Your task to perform on an android device: turn off picture-in-picture Image 0: 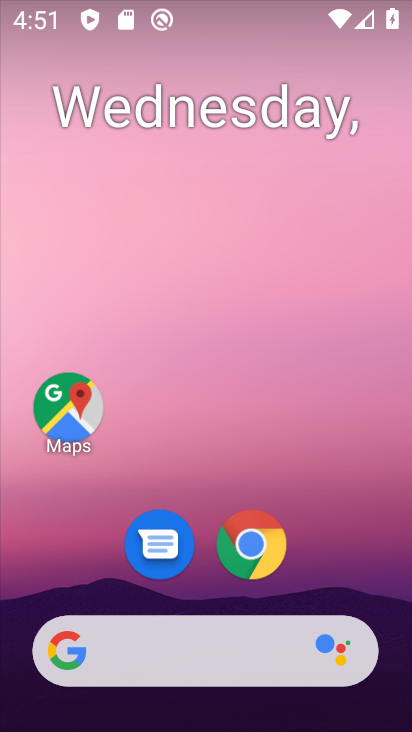
Step 0: click (250, 545)
Your task to perform on an android device: turn off picture-in-picture Image 1: 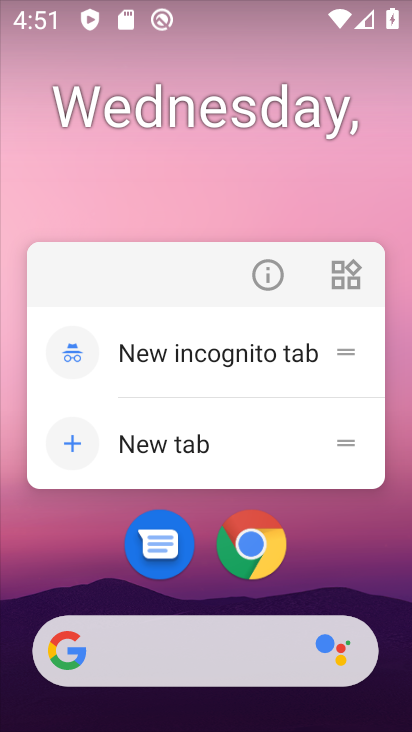
Step 1: click (256, 276)
Your task to perform on an android device: turn off picture-in-picture Image 2: 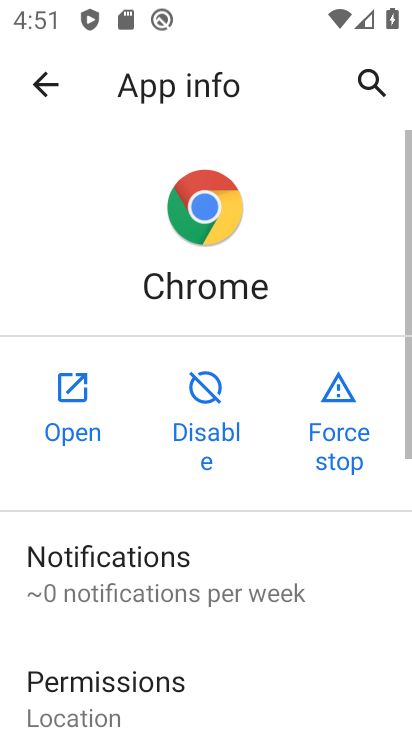
Step 2: drag from (261, 682) to (210, 258)
Your task to perform on an android device: turn off picture-in-picture Image 3: 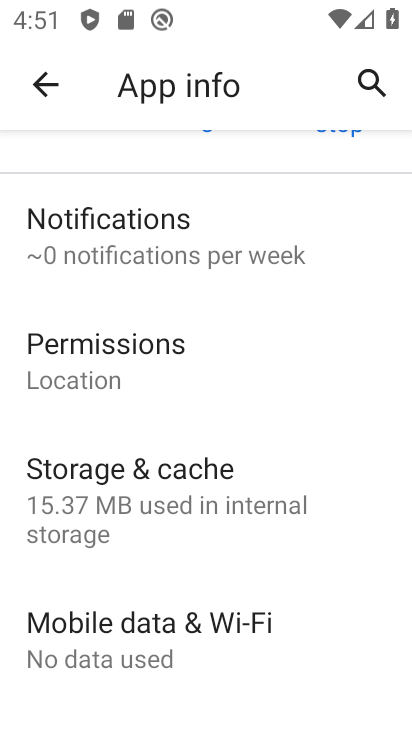
Step 3: drag from (279, 670) to (285, 338)
Your task to perform on an android device: turn off picture-in-picture Image 4: 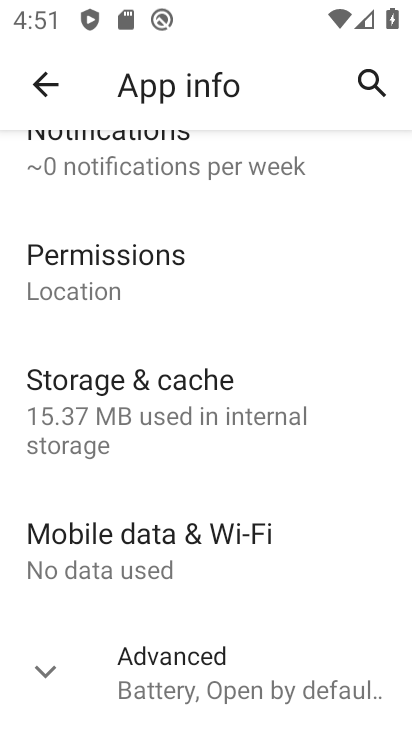
Step 4: click (45, 678)
Your task to perform on an android device: turn off picture-in-picture Image 5: 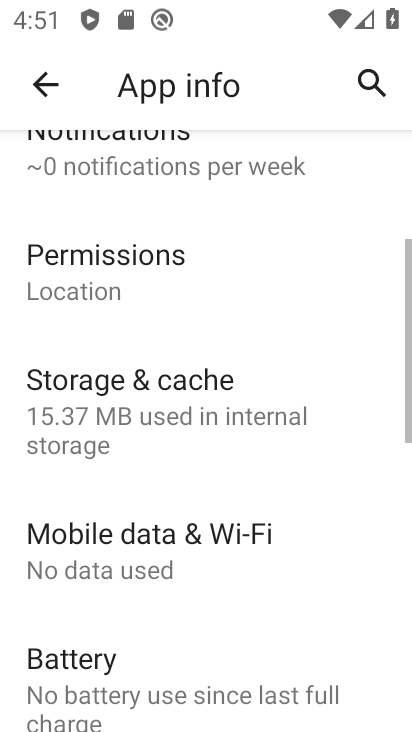
Step 5: drag from (292, 612) to (293, 381)
Your task to perform on an android device: turn off picture-in-picture Image 6: 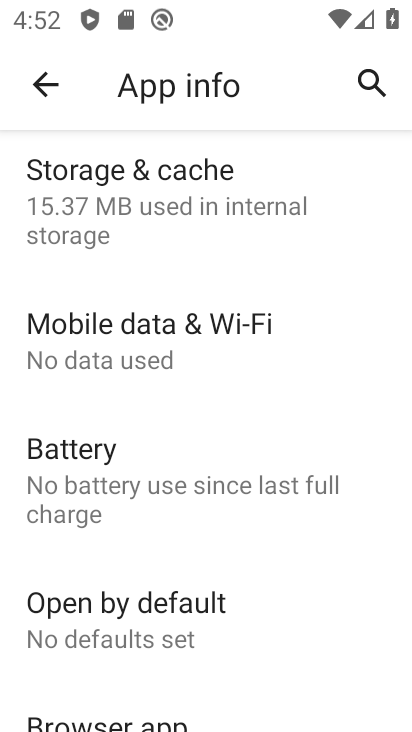
Step 6: drag from (295, 641) to (267, 236)
Your task to perform on an android device: turn off picture-in-picture Image 7: 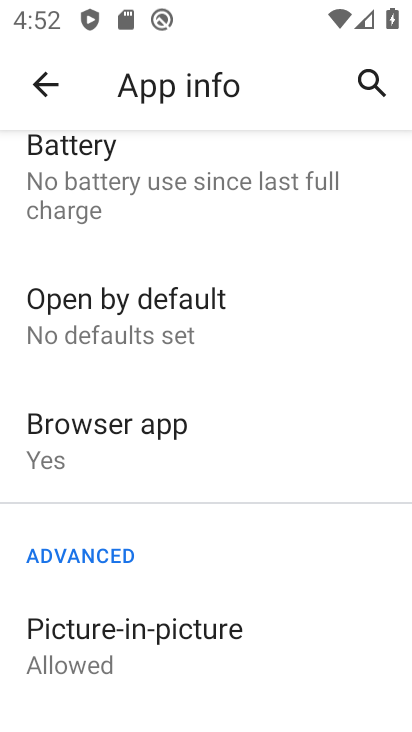
Step 7: click (124, 639)
Your task to perform on an android device: turn off picture-in-picture Image 8: 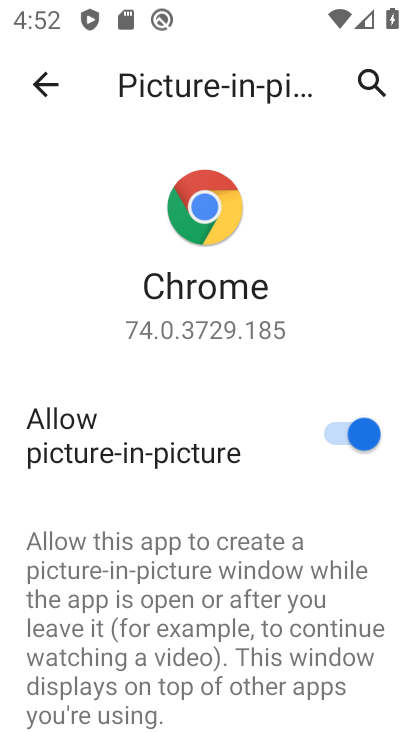
Step 8: click (322, 439)
Your task to perform on an android device: turn off picture-in-picture Image 9: 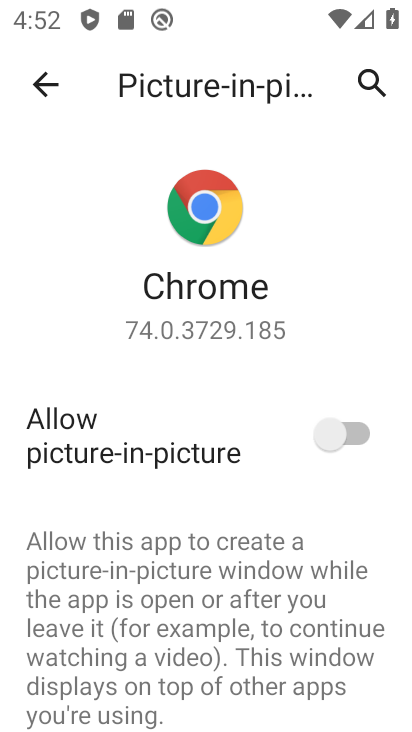
Step 9: task complete